Your task to perform on an android device: stop showing notifications on the lock screen Image 0: 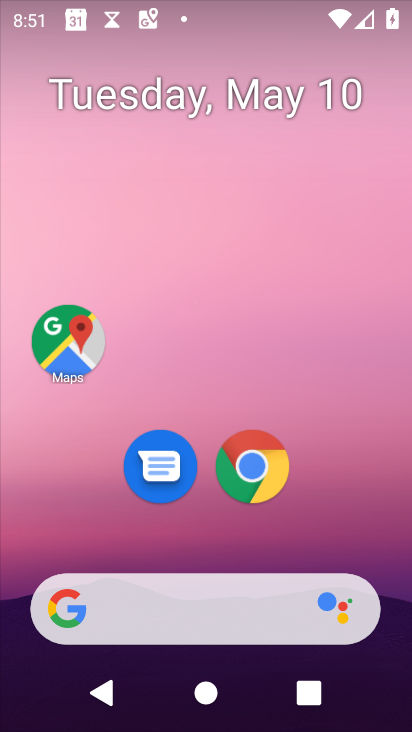
Step 0: drag from (327, 525) to (369, 80)
Your task to perform on an android device: stop showing notifications on the lock screen Image 1: 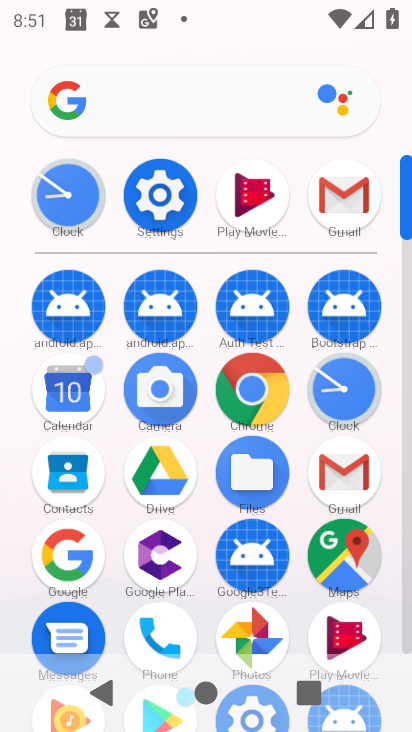
Step 1: click (150, 204)
Your task to perform on an android device: stop showing notifications on the lock screen Image 2: 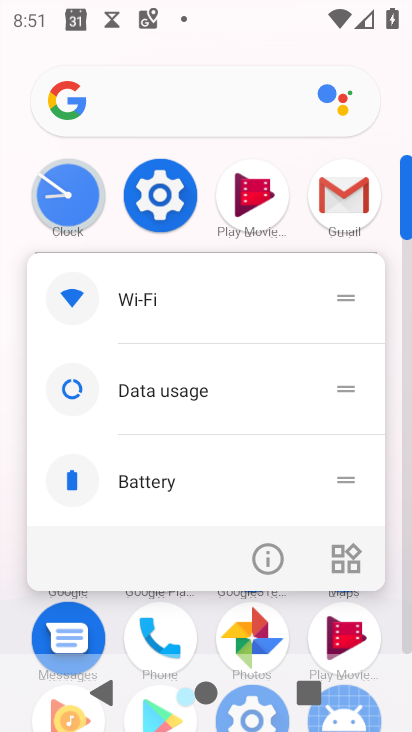
Step 2: click (166, 202)
Your task to perform on an android device: stop showing notifications on the lock screen Image 3: 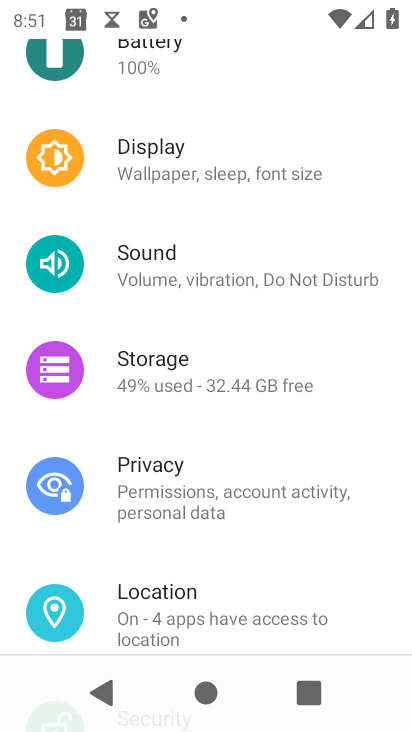
Step 3: drag from (208, 201) to (237, 344)
Your task to perform on an android device: stop showing notifications on the lock screen Image 4: 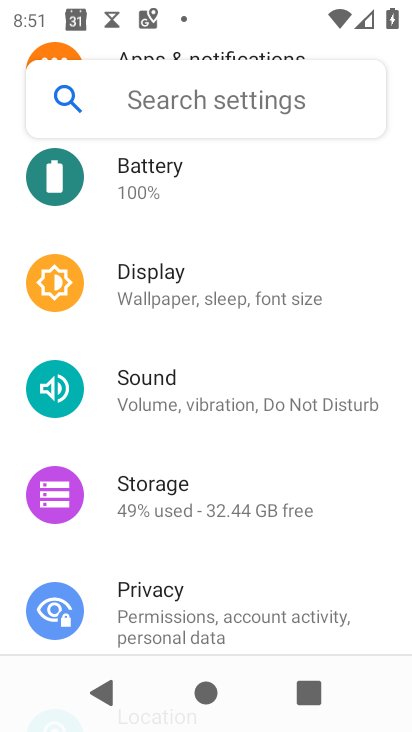
Step 4: drag from (226, 220) to (237, 354)
Your task to perform on an android device: stop showing notifications on the lock screen Image 5: 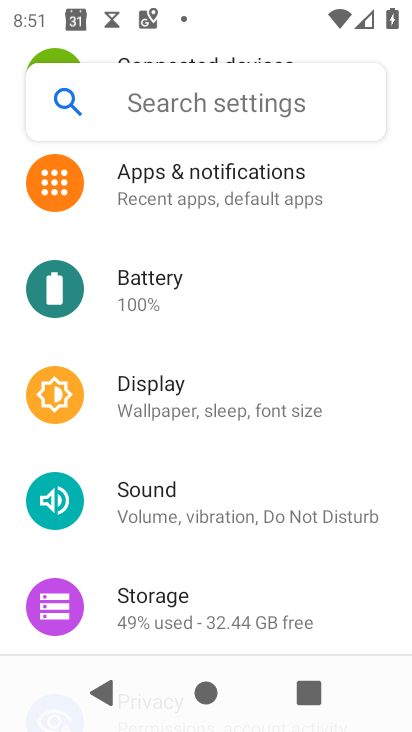
Step 5: click (209, 194)
Your task to perform on an android device: stop showing notifications on the lock screen Image 6: 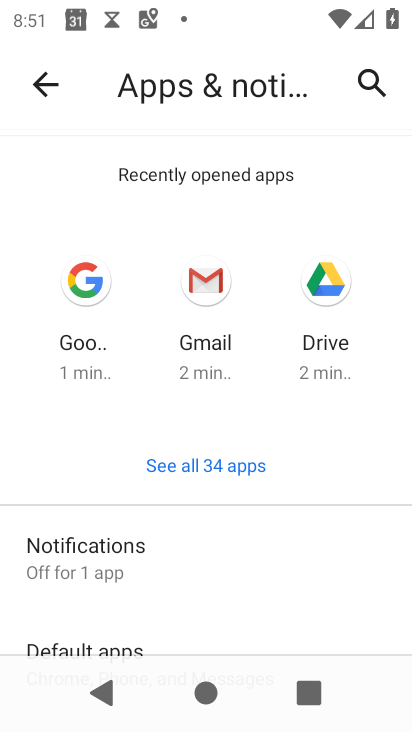
Step 6: click (244, 550)
Your task to perform on an android device: stop showing notifications on the lock screen Image 7: 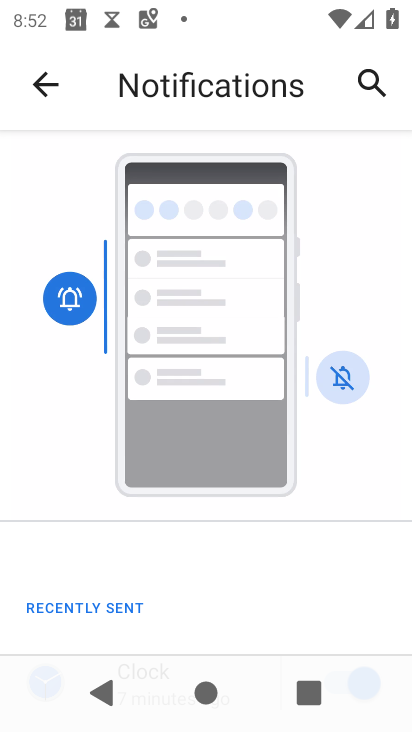
Step 7: drag from (198, 563) to (173, 387)
Your task to perform on an android device: stop showing notifications on the lock screen Image 8: 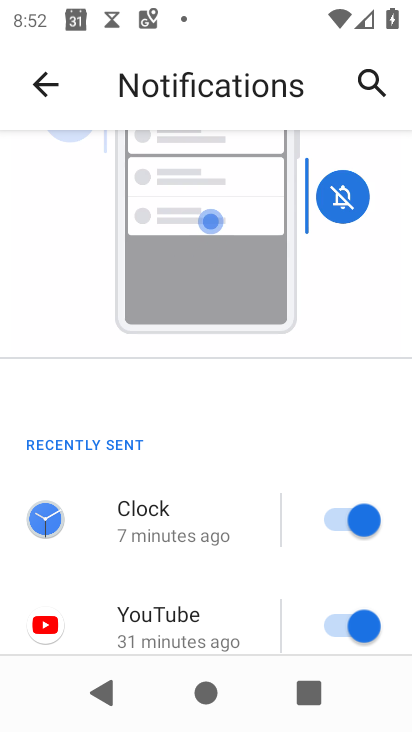
Step 8: drag from (215, 497) to (237, 274)
Your task to perform on an android device: stop showing notifications on the lock screen Image 9: 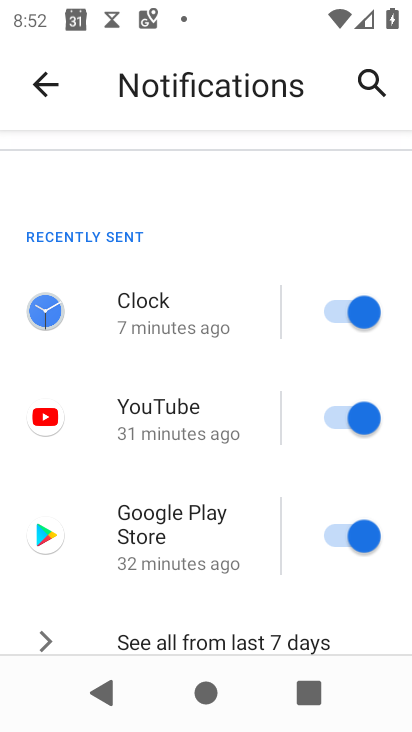
Step 9: drag from (229, 517) to (265, 294)
Your task to perform on an android device: stop showing notifications on the lock screen Image 10: 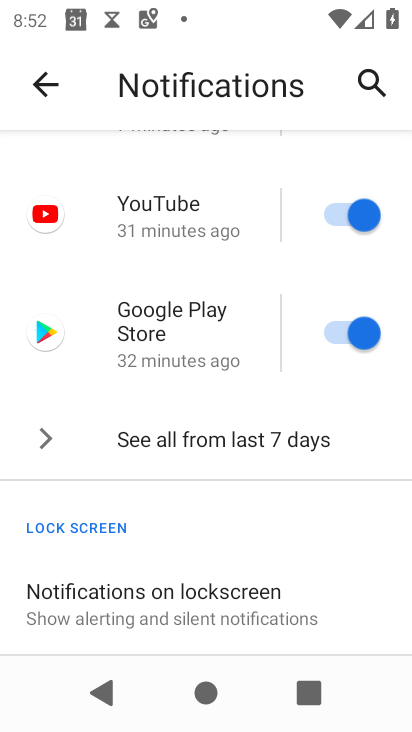
Step 10: click (186, 594)
Your task to perform on an android device: stop showing notifications on the lock screen Image 11: 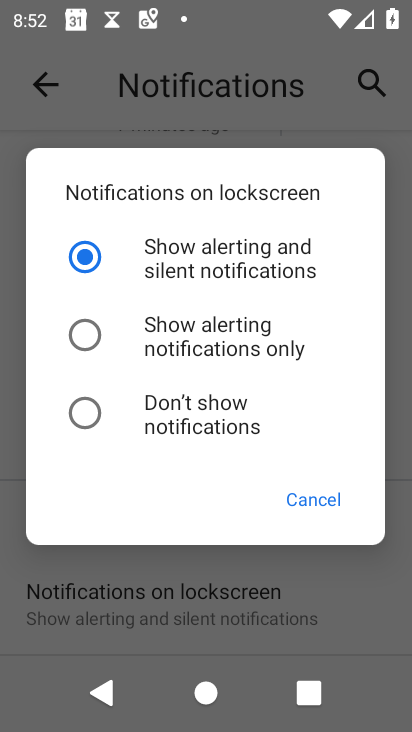
Step 11: click (214, 403)
Your task to perform on an android device: stop showing notifications on the lock screen Image 12: 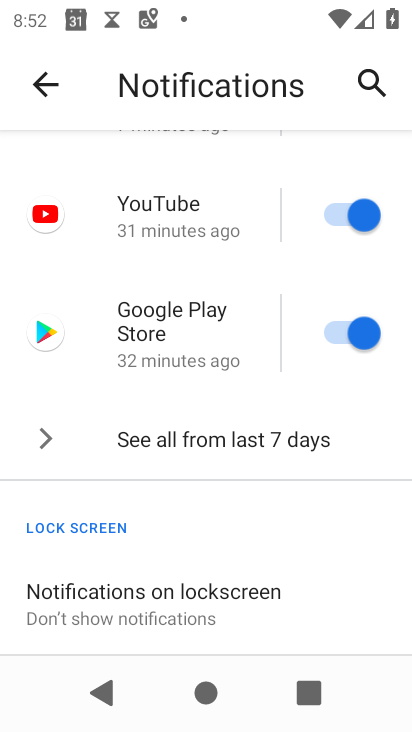
Step 12: task complete